Your task to perform on an android device: Search for vegetarian restaurants on Maps Image 0: 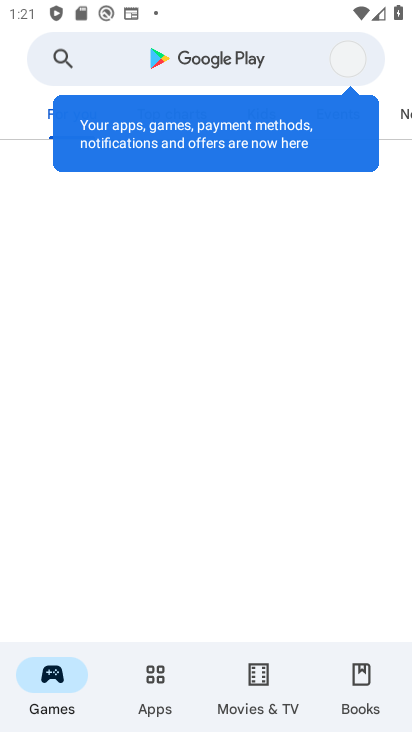
Step 0: press home button
Your task to perform on an android device: Search for vegetarian restaurants on Maps Image 1: 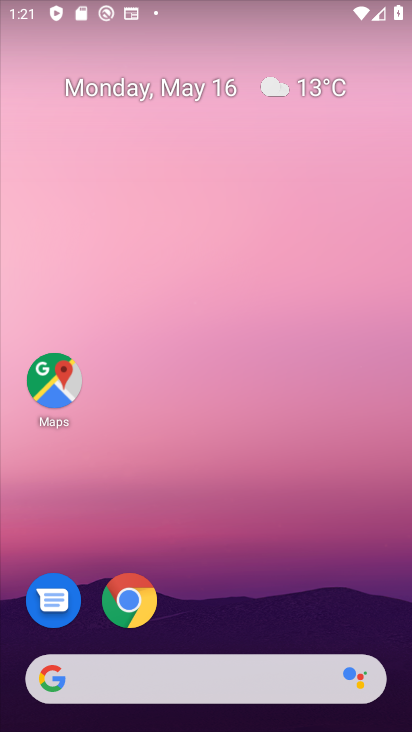
Step 1: click (57, 387)
Your task to perform on an android device: Search for vegetarian restaurants on Maps Image 2: 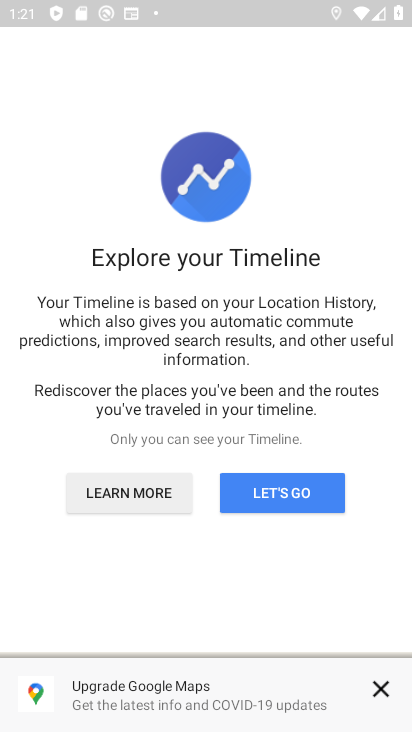
Step 2: press back button
Your task to perform on an android device: Search for vegetarian restaurants on Maps Image 3: 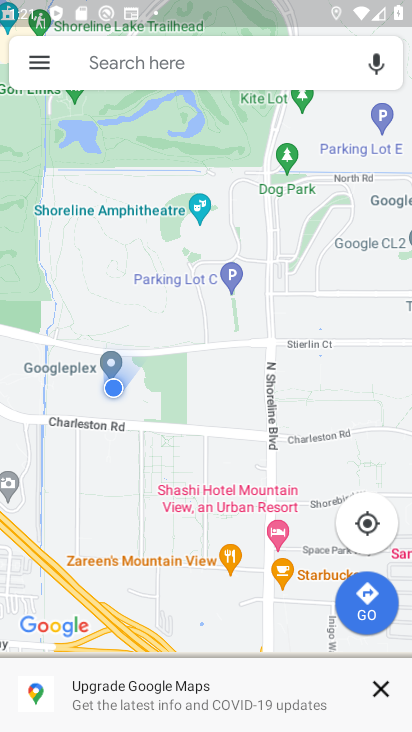
Step 3: click (131, 59)
Your task to perform on an android device: Search for vegetarian restaurants on Maps Image 4: 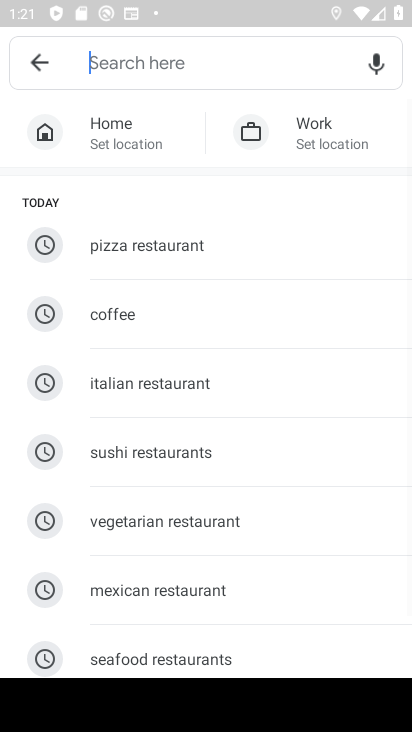
Step 4: click (134, 519)
Your task to perform on an android device: Search for vegetarian restaurants on Maps Image 5: 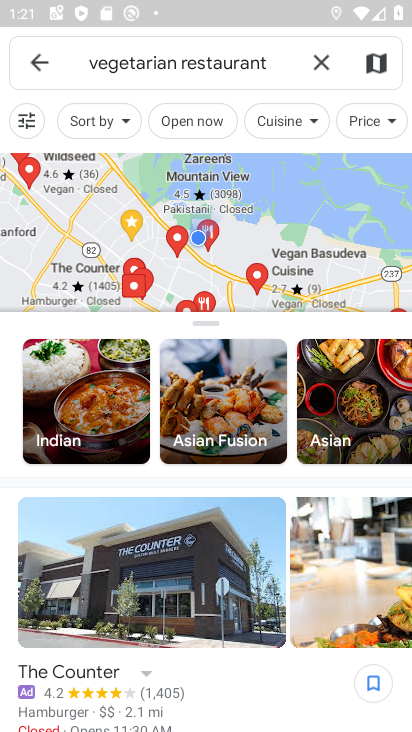
Step 5: task complete